Your task to perform on an android device: Turn off the flashlight Image 0: 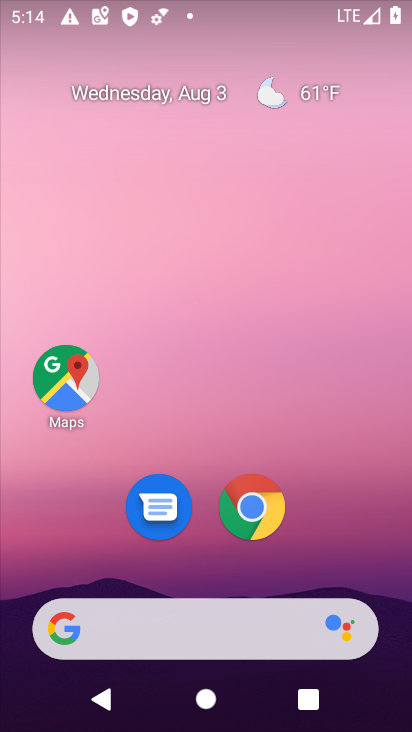
Step 0: drag from (340, 496) to (354, 113)
Your task to perform on an android device: Turn off the flashlight Image 1: 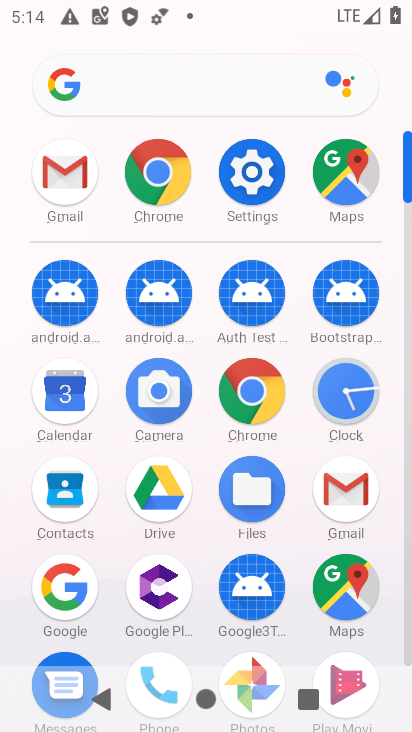
Step 1: click (257, 186)
Your task to perform on an android device: Turn off the flashlight Image 2: 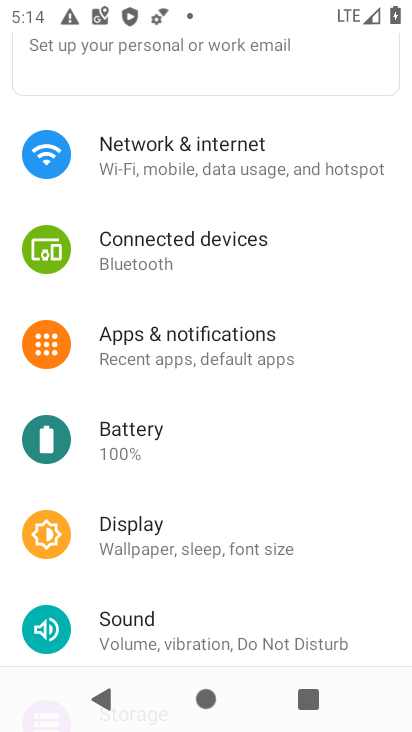
Step 2: click (178, 541)
Your task to perform on an android device: Turn off the flashlight Image 3: 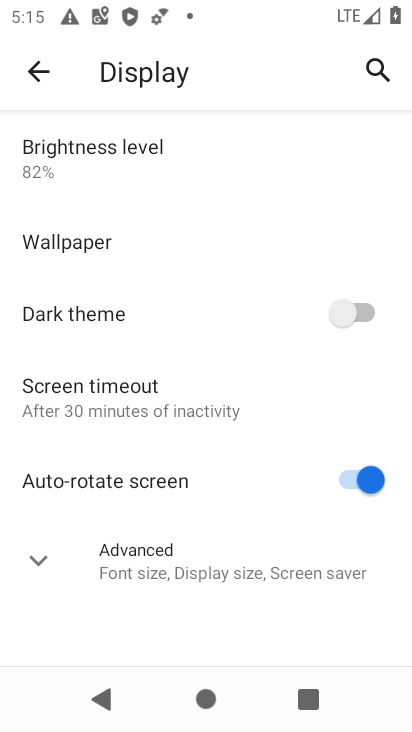
Step 3: click (60, 396)
Your task to perform on an android device: Turn off the flashlight Image 4: 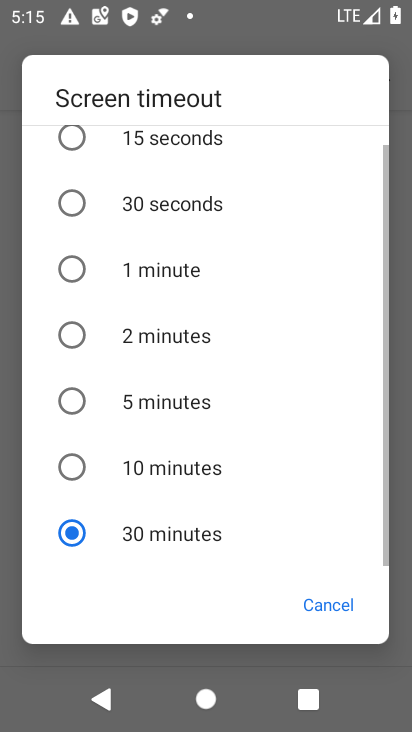
Step 4: task complete